Your task to perform on an android device: allow cookies in the chrome app Image 0: 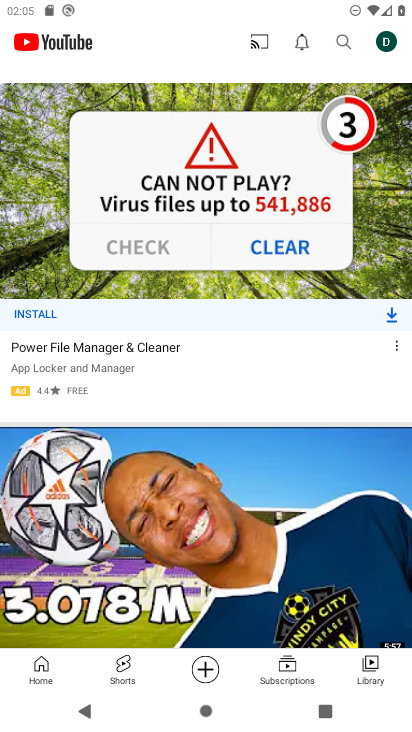
Step 0: press home button
Your task to perform on an android device: allow cookies in the chrome app Image 1: 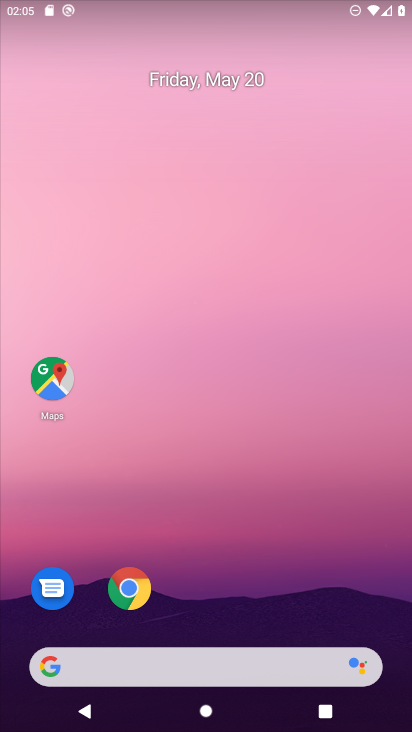
Step 1: click (128, 591)
Your task to perform on an android device: allow cookies in the chrome app Image 2: 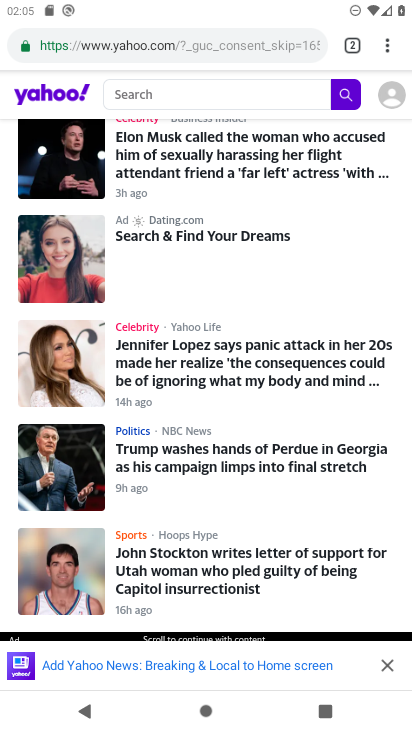
Step 2: click (383, 47)
Your task to perform on an android device: allow cookies in the chrome app Image 3: 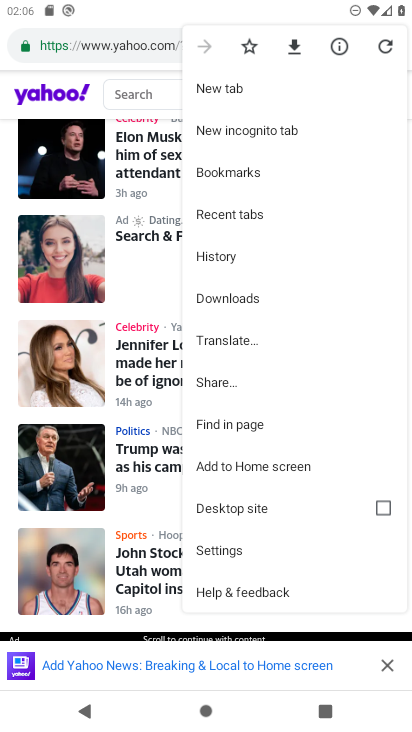
Step 3: click (233, 542)
Your task to perform on an android device: allow cookies in the chrome app Image 4: 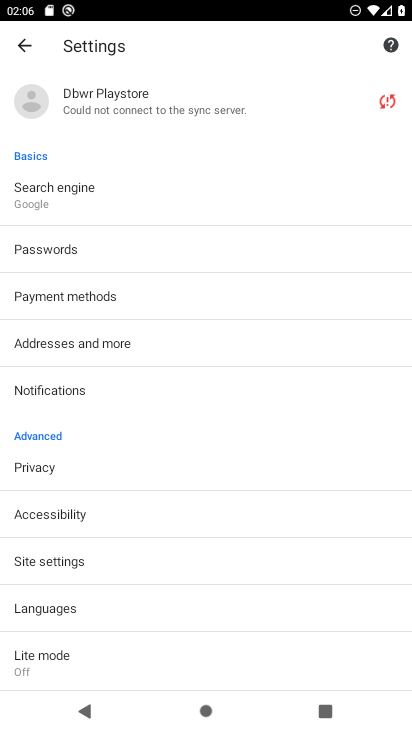
Step 4: drag from (144, 585) to (163, 360)
Your task to perform on an android device: allow cookies in the chrome app Image 5: 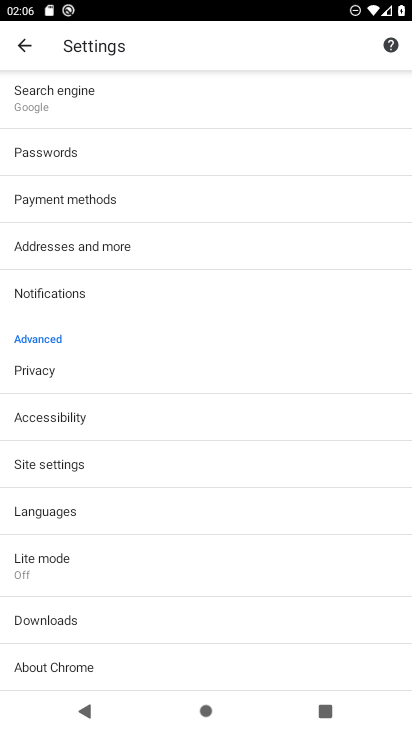
Step 5: click (52, 459)
Your task to perform on an android device: allow cookies in the chrome app Image 6: 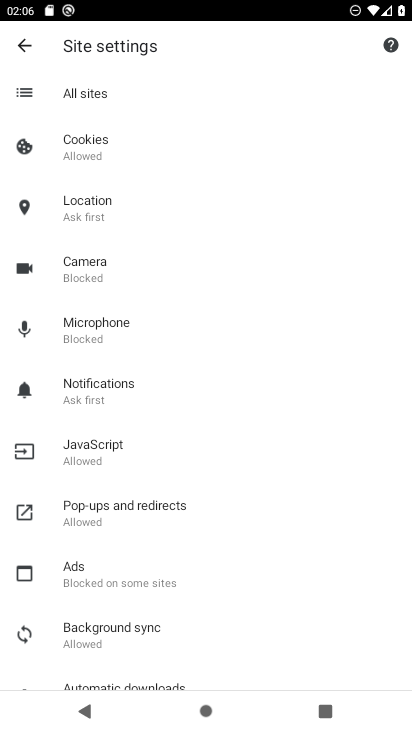
Step 6: click (92, 138)
Your task to perform on an android device: allow cookies in the chrome app Image 7: 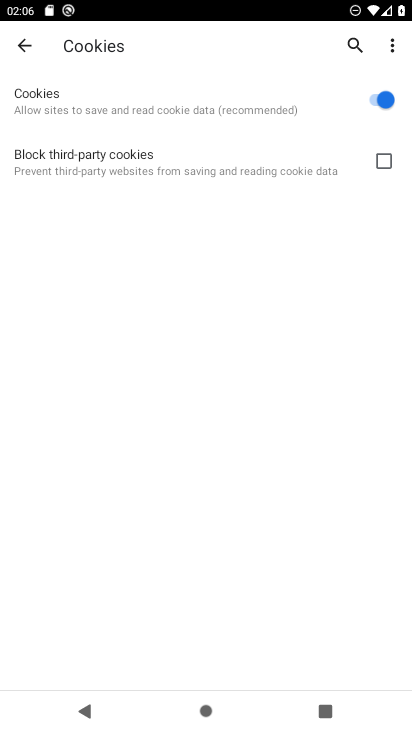
Step 7: task complete